Your task to perform on an android device: open app "Roku - Official Remote Control" (install if not already installed), go to login, and select forgot password Image 0: 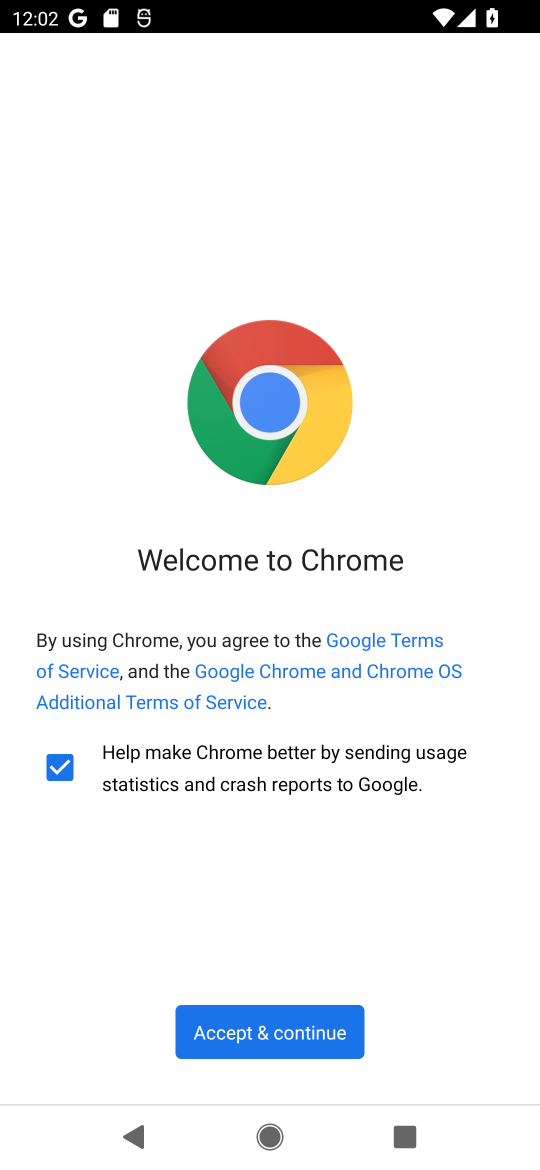
Step 0: press back button
Your task to perform on an android device: open app "Roku - Official Remote Control" (install if not already installed), go to login, and select forgot password Image 1: 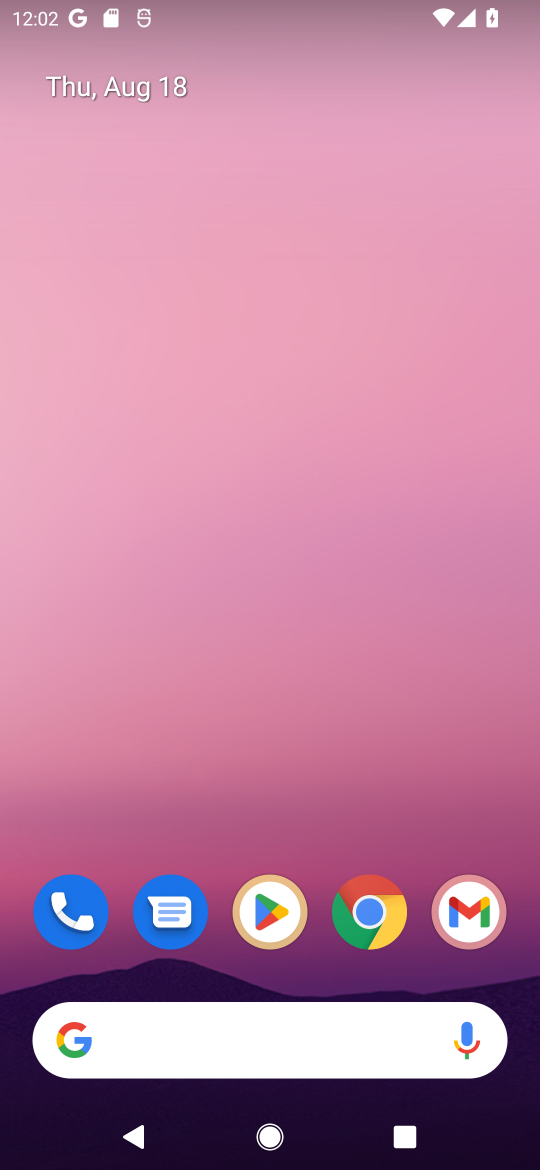
Step 1: click (268, 921)
Your task to perform on an android device: open app "Roku - Official Remote Control" (install if not already installed), go to login, and select forgot password Image 2: 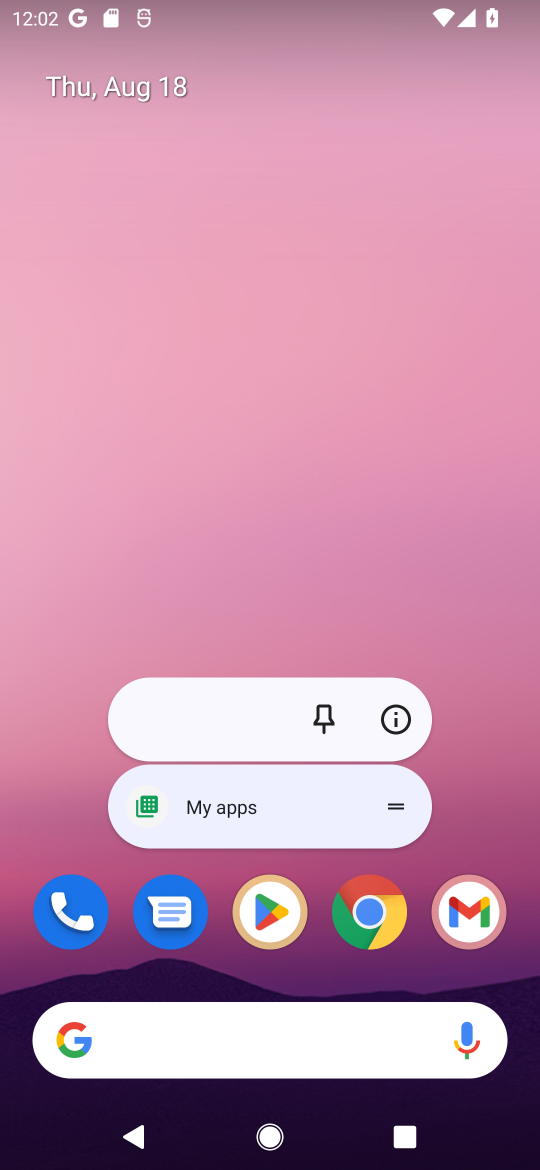
Step 2: click (268, 914)
Your task to perform on an android device: open app "Roku - Official Remote Control" (install if not already installed), go to login, and select forgot password Image 3: 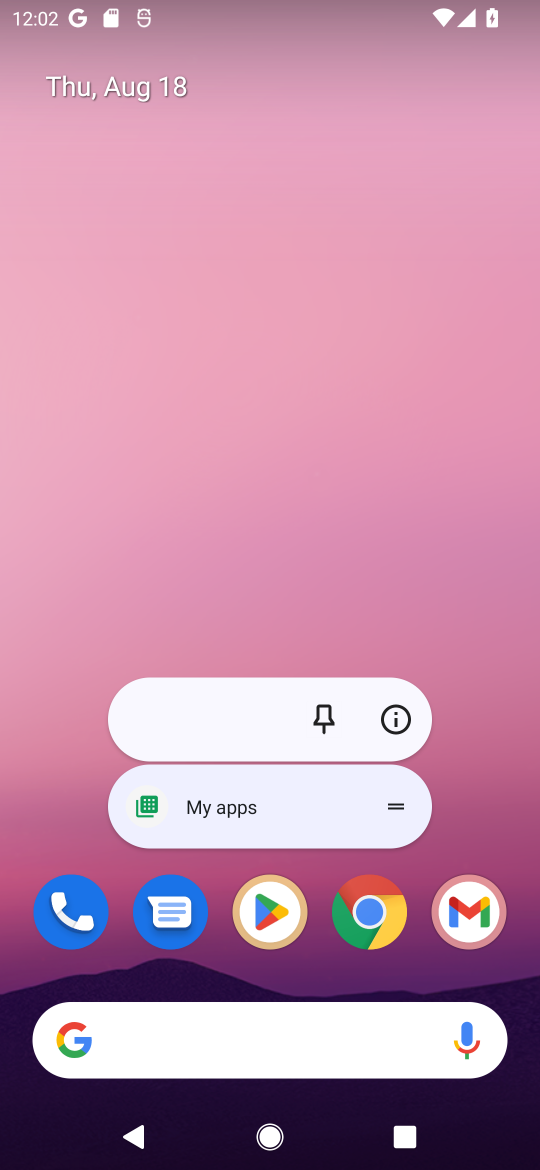
Step 3: click (268, 929)
Your task to perform on an android device: open app "Roku - Official Remote Control" (install if not already installed), go to login, and select forgot password Image 4: 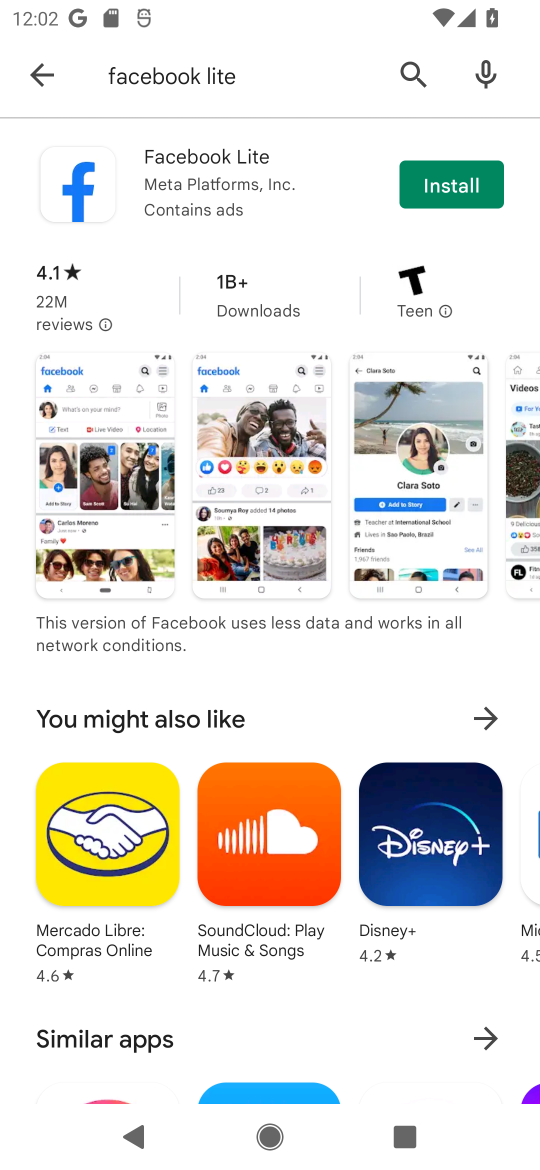
Step 4: click (400, 68)
Your task to perform on an android device: open app "Roku - Official Remote Control" (install if not already installed), go to login, and select forgot password Image 5: 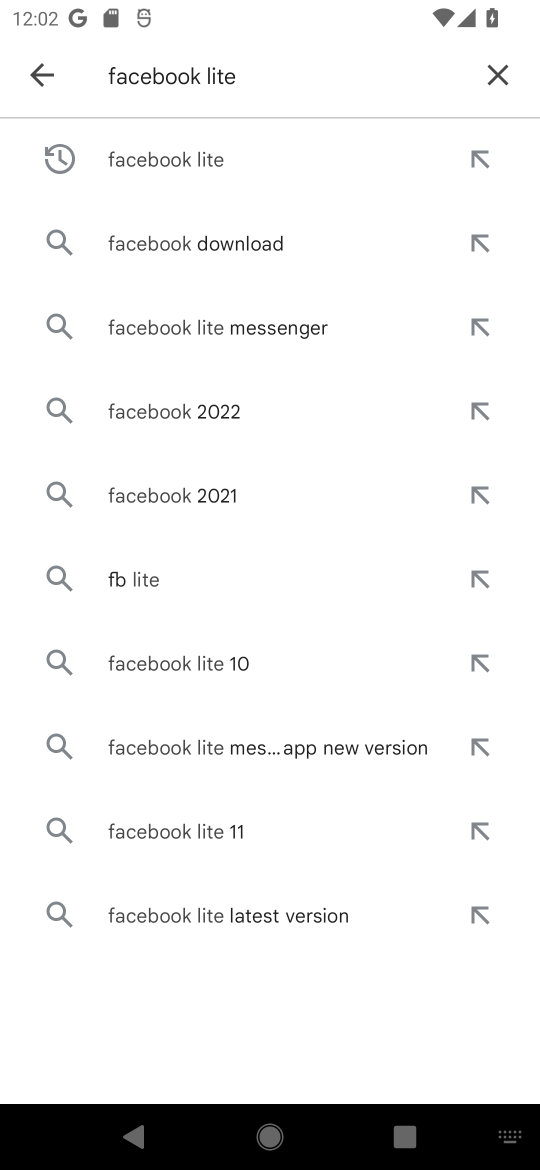
Step 5: click (491, 76)
Your task to perform on an android device: open app "Roku - Official Remote Control" (install if not already installed), go to login, and select forgot password Image 6: 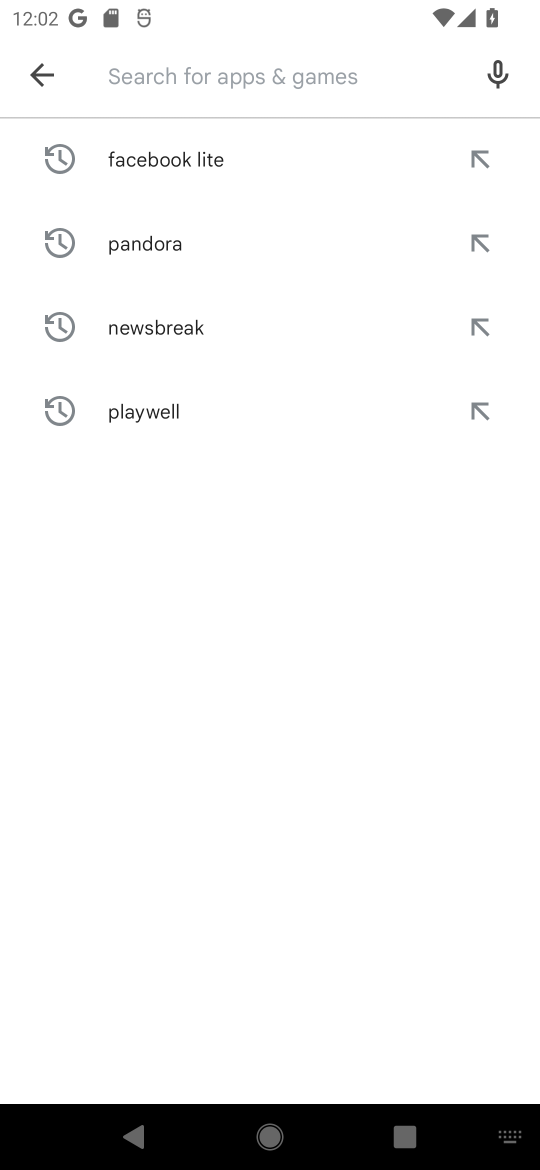
Step 6: click (188, 55)
Your task to perform on an android device: open app "Roku - Official Remote Control" (install if not already installed), go to login, and select forgot password Image 7: 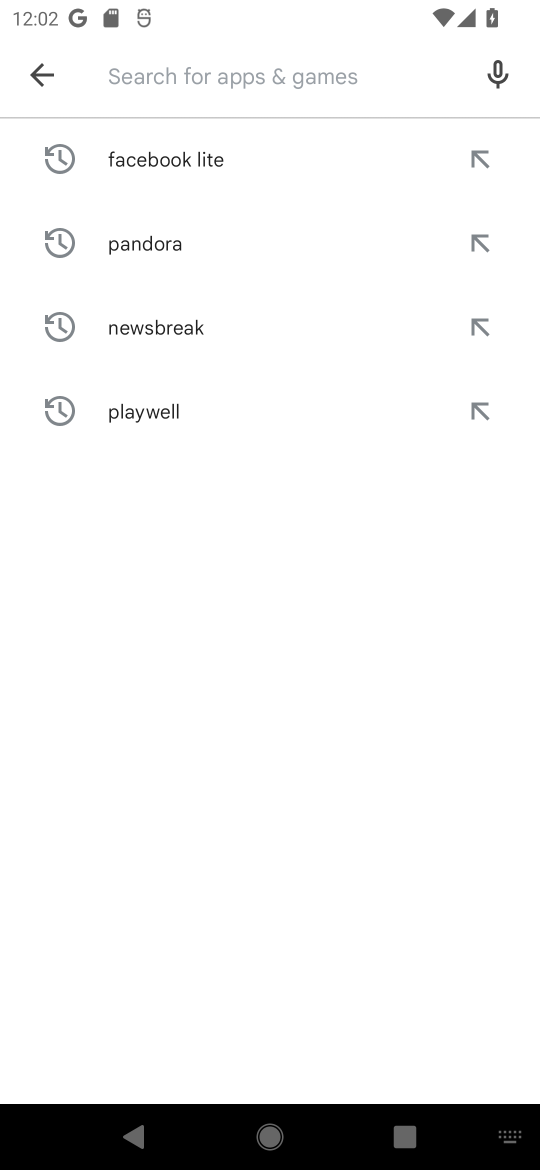
Step 7: type "Roku"
Your task to perform on an android device: open app "Roku - Official Remote Control" (install if not already installed), go to login, and select forgot password Image 8: 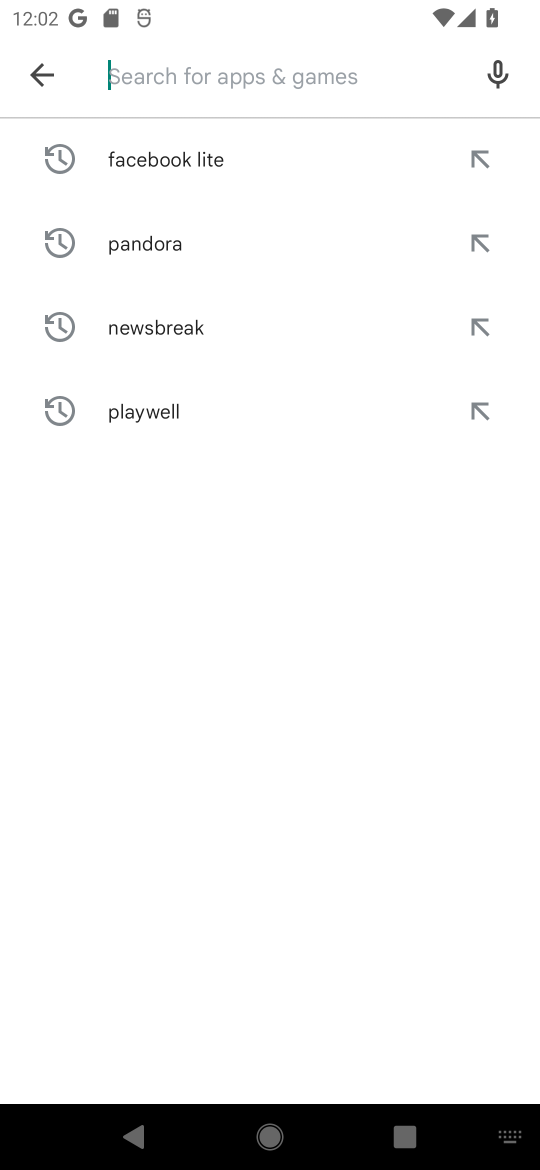
Step 8: click (334, 753)
Your task to perform on an android device: open app "Roku - Official Remote Control" (install if not already installed), go to login, and select forgot password Image 9: 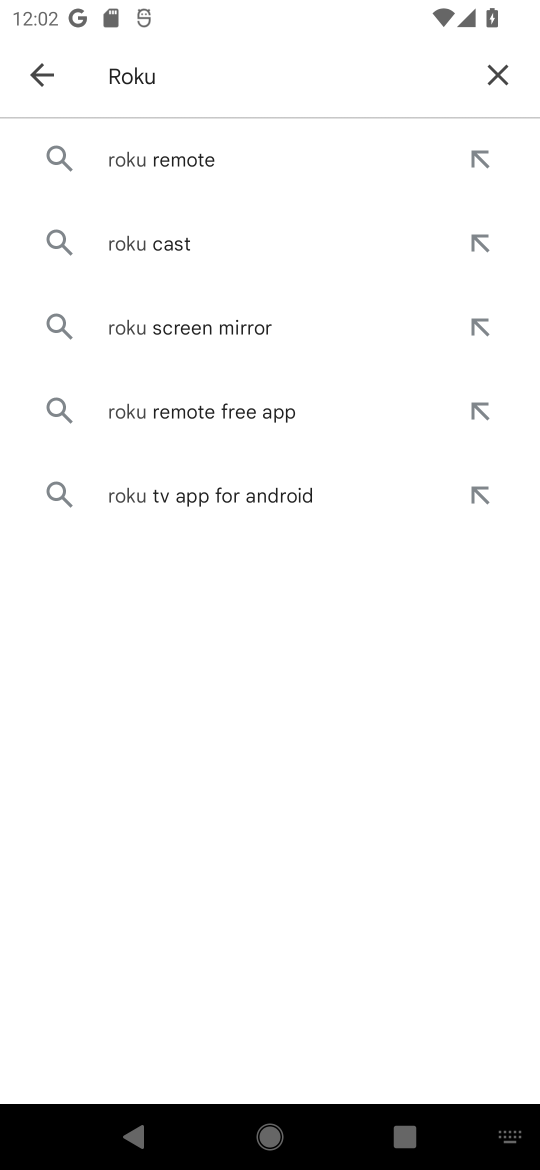
Step 9: click (172, 146)
Your task to perform on an android device: open app "Roku - Official Remote Control" (install if not already installed), go to login, and select forgot password Image 10: 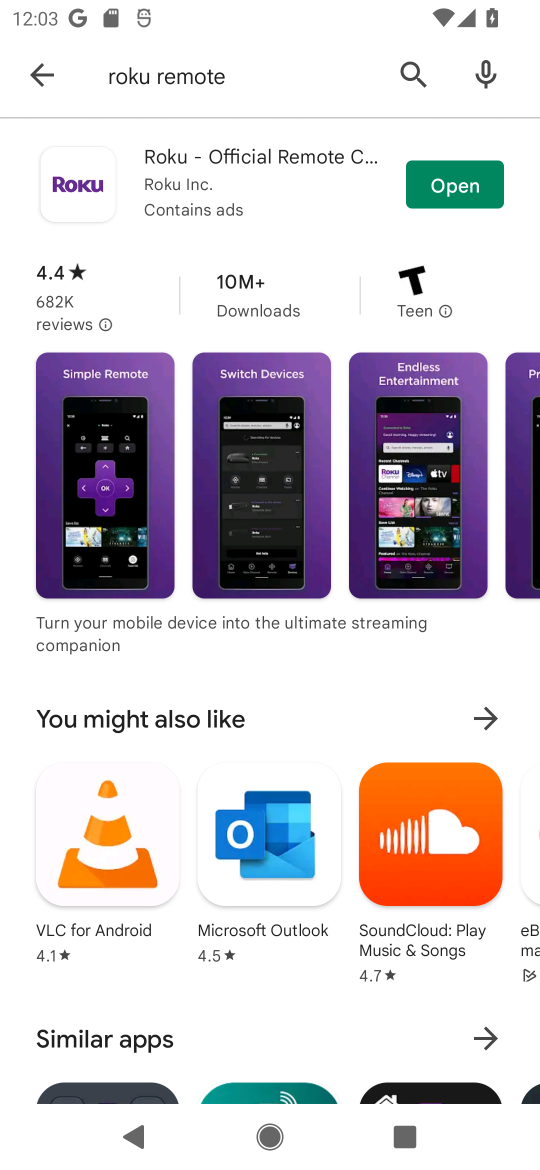
Step 10: click (471, 188)
Your task to perform on an android device: open app "Roku - Official Remote Control" (install if not already installed), go to login, and select forgot password Image 11: 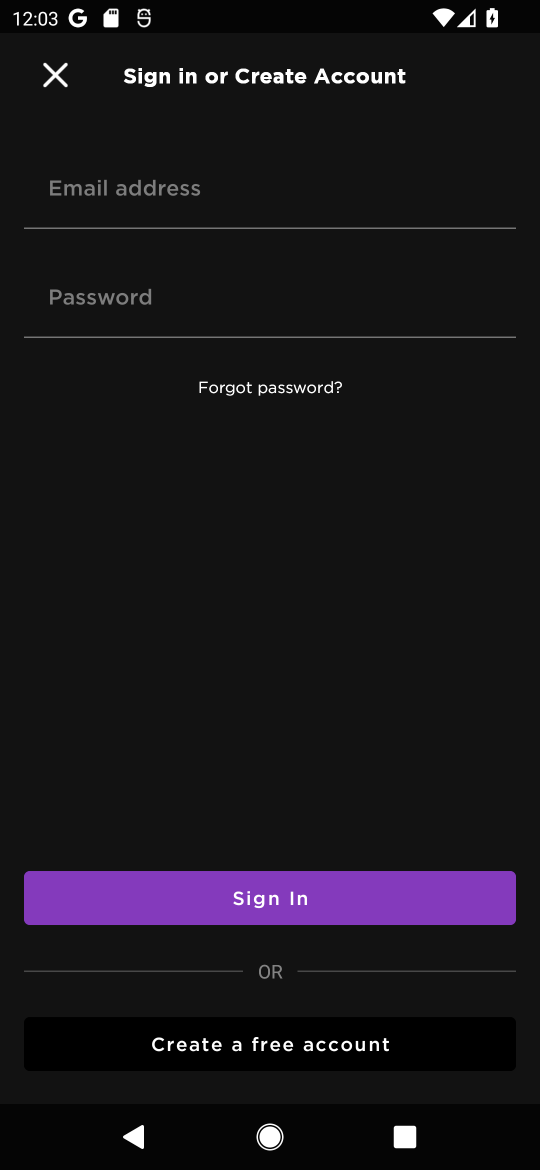
Step 11: click (275, 375)
Your task to perform on an android device: open app "Roku - Official Remote Control" (install if not already installed), go to login, and select forgot password Image 12: 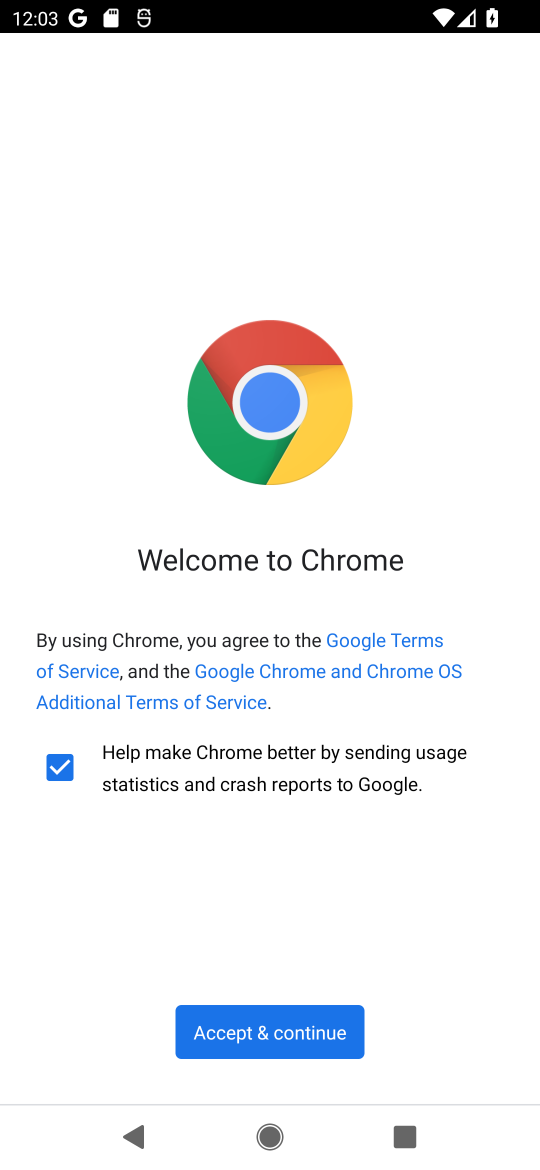
Step 12: task complete